Your task to perform on an android device: Go to ESPN.com Image 0: 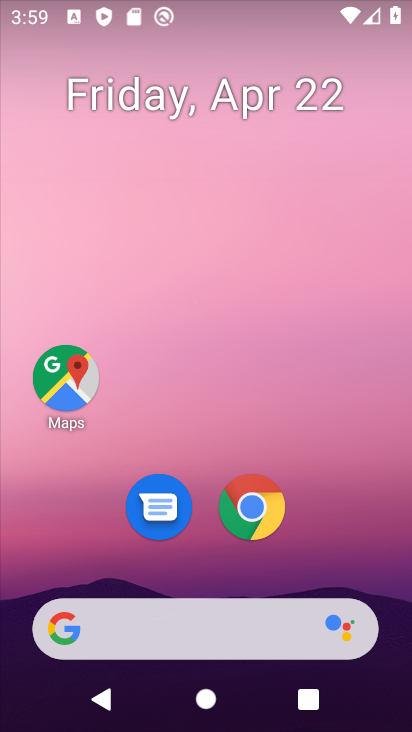
Step 0: click (277, 635)
Your task to perform on an android device: Go to ESPN.com Image 1: 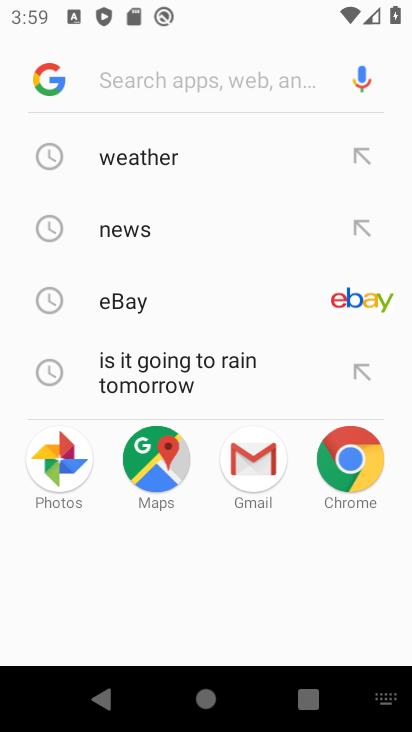
Step 1: type "espn.com"
Your task to perform on an android device: Go to ESPN.com Image 2: 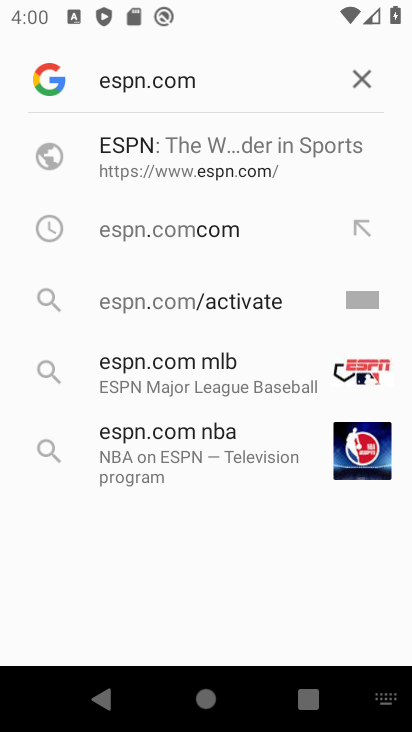
Step 2: click (217, 146)
Your task to perform on an android device: Go to ESPN.com Image 3: 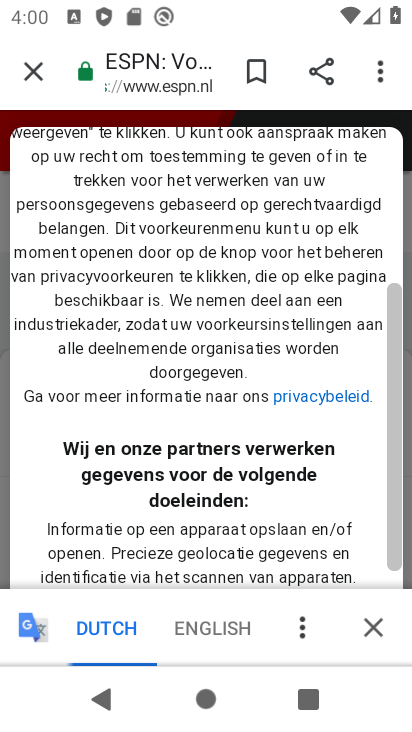
Step 3: task complete